Your task to perform on an android device: Go to eBay Image 0: 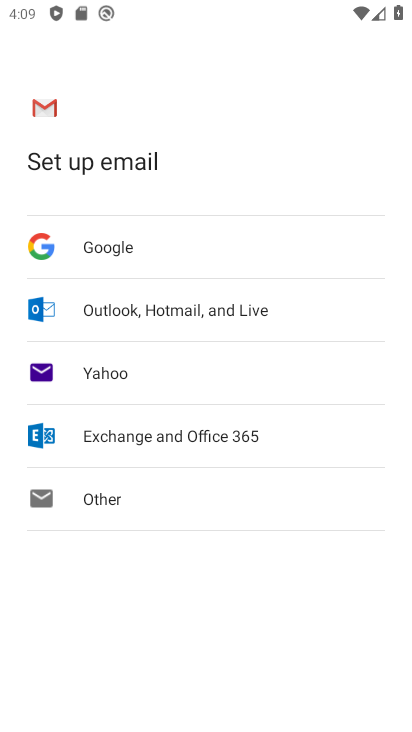
Step 0: press back button
Your task to perform on an android device: Go to eBay Image 1: 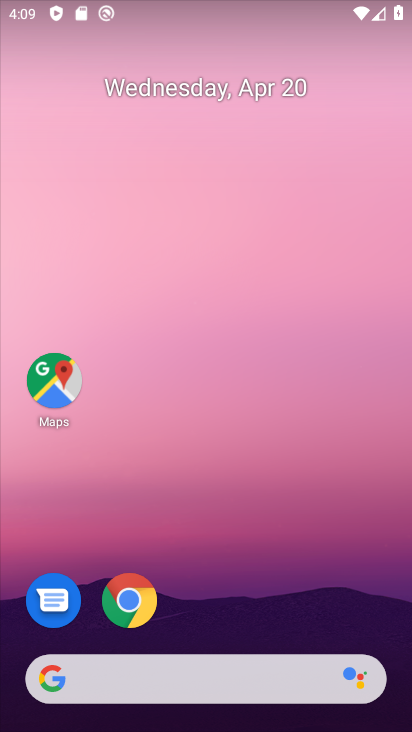
Step 1: drag from (202, 651) to (306, 125)
Your task to perform on an android device: Go to eBay Image 2: 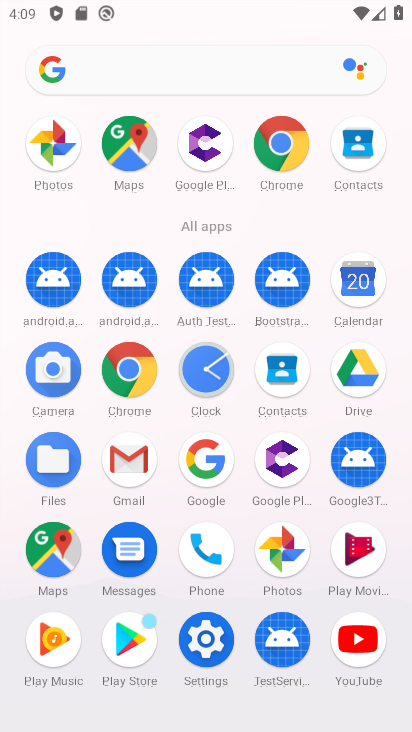
Step 2: click (137, 384)
Your task to perform on an android device: Go to eBay Image 3: 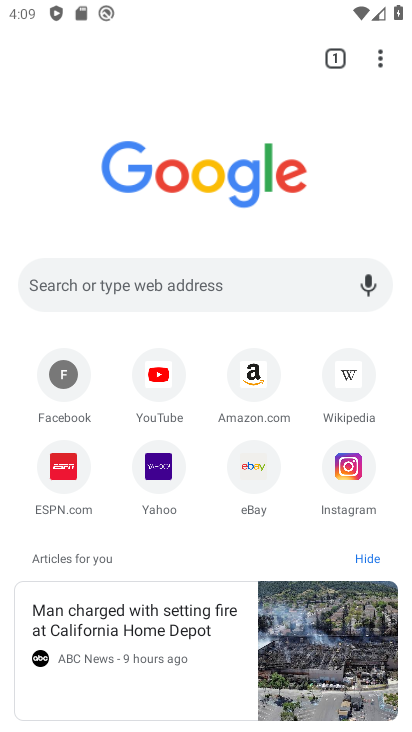
Step 3: click (250, 472)
Your task to perform on an android device: Go to eBay Image 4: 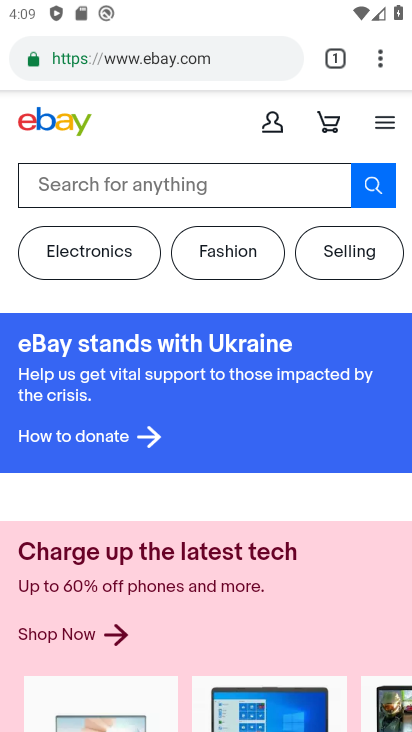
Step 4: task complete